Your task to perform on an android device: add a contact Image 0: 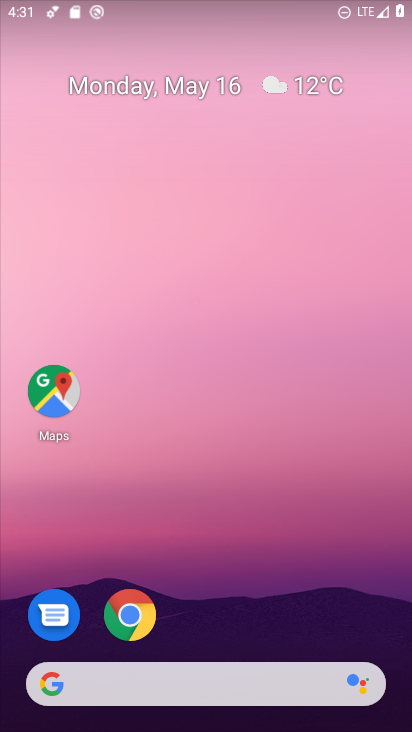
Step 0: drag from (192, 716) to (193, 24)
Your task to perform on an android device: add a contact Image 1: 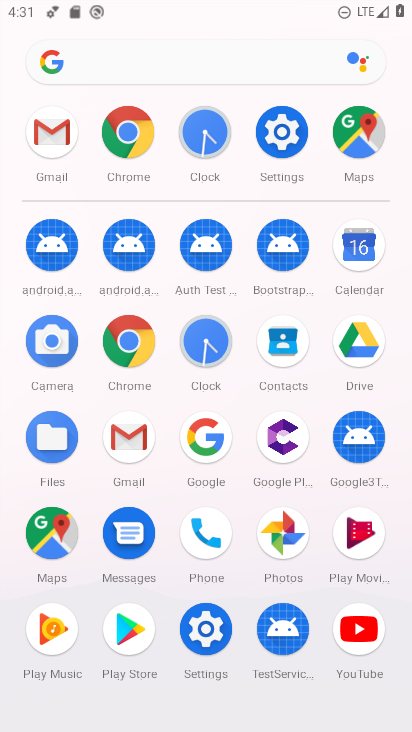
Step 1: click (282, 340)
Your task to perform on an android device: add a contact Image 2: 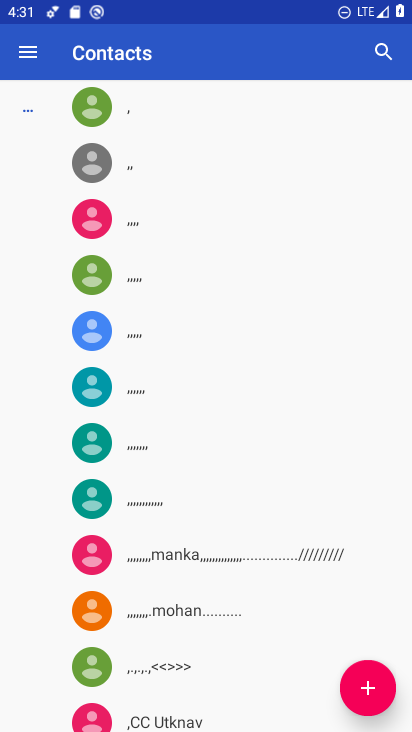
Step 2: click (363, 689)
Your task to perform on an android device: add a contact Image 3: 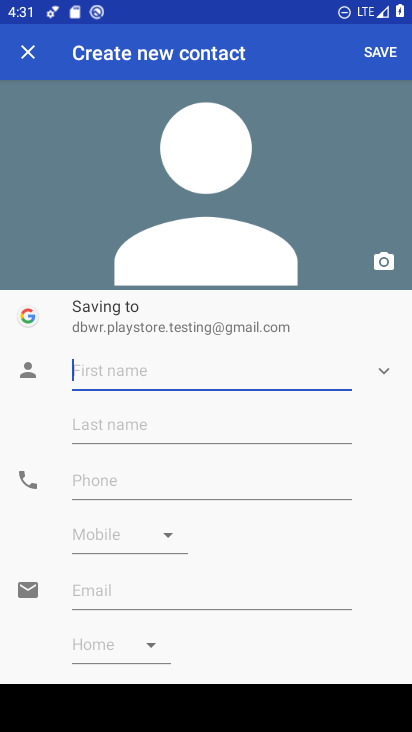
Step 3: type "jos"
Your task to perform on an android device: add a contact Image 4: 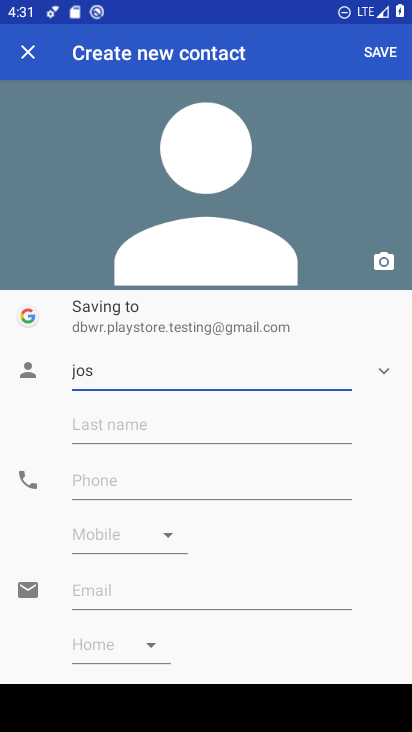
Step 4: click (132, 478)
Your task to perform on an android device: add a contact Image 5: 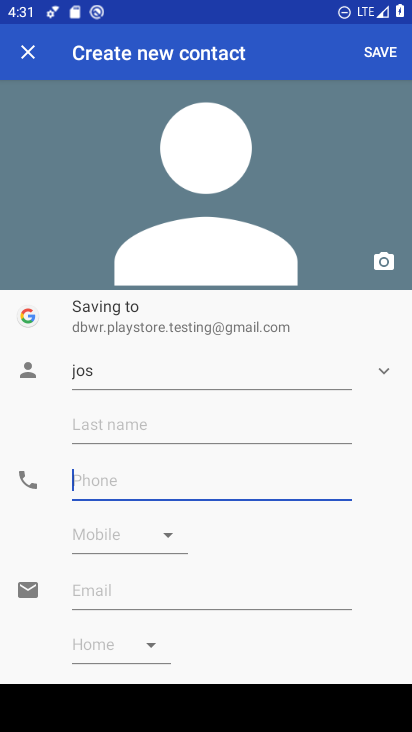
Step 5: type "56789"
Your task to perform on an android device: add a contact Image 6: 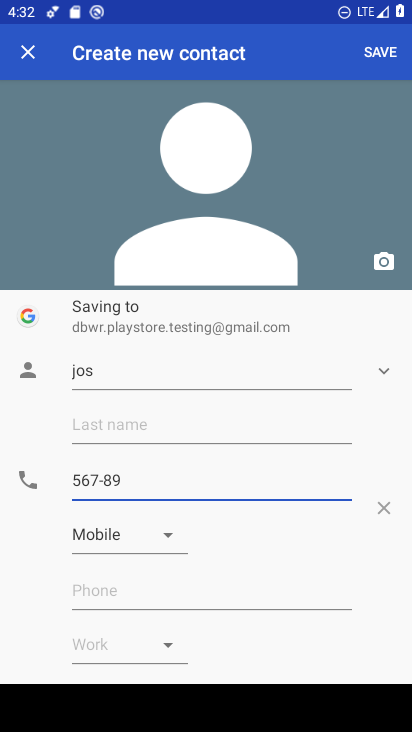
Step 6: click (378, 42)
Your task to perform on an android device: add a contact Image 7: 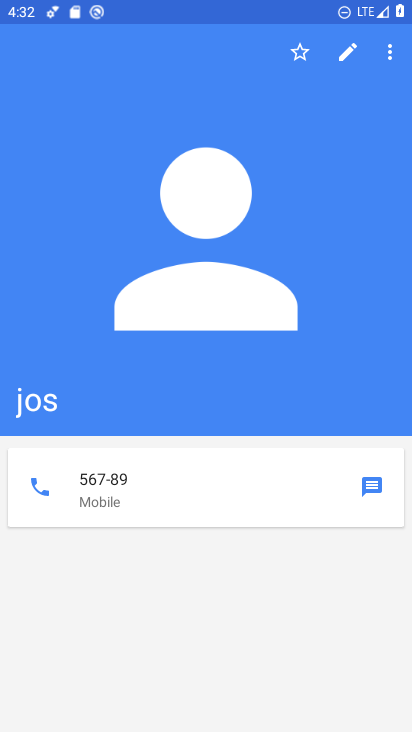
Step 7: task complete